Your task to perform on an android device: Open eBay Image 0: 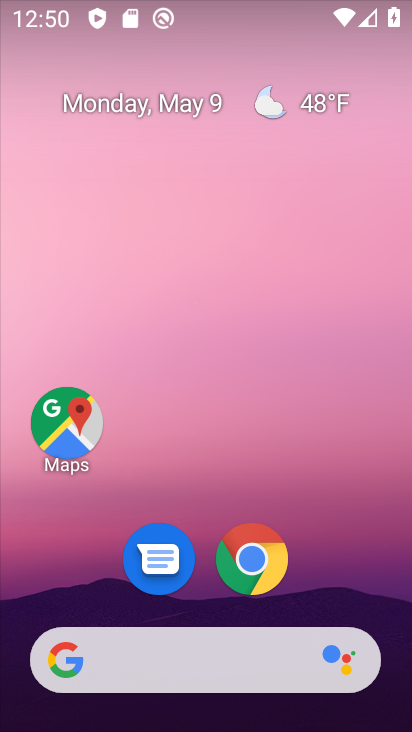
Step 0: drag from (221, 622) to (194, 237)
Your task to perform on an android device: Open eBay Image 1: 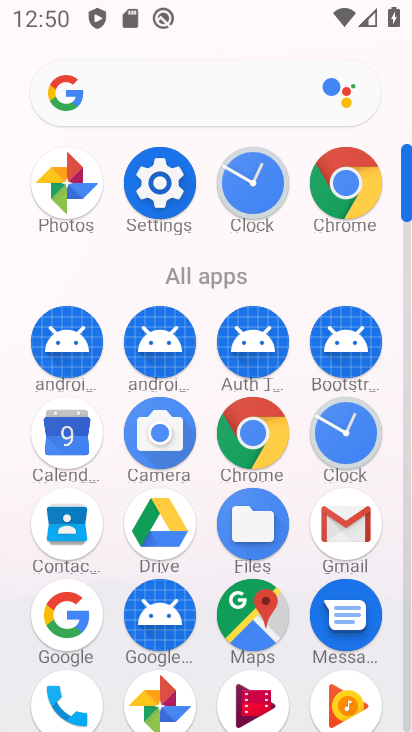
Step 1: drag from (214, 651) to (218, 329)
Your task to perform on an android device: Open eBay Image 2: 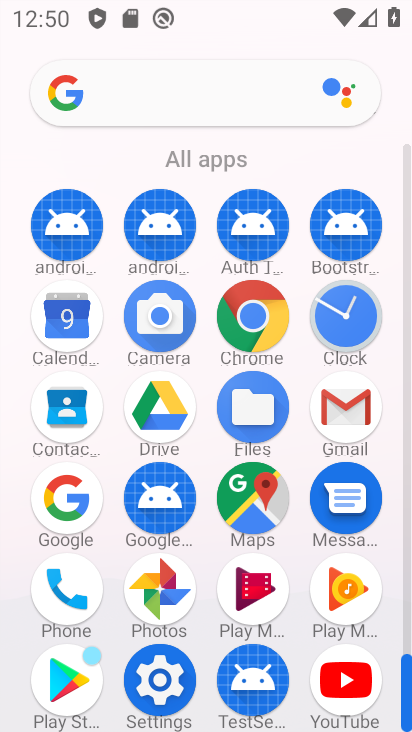
Step 2: click (168, 76)
Your task to perform on an android device: Open eBay Image 3: 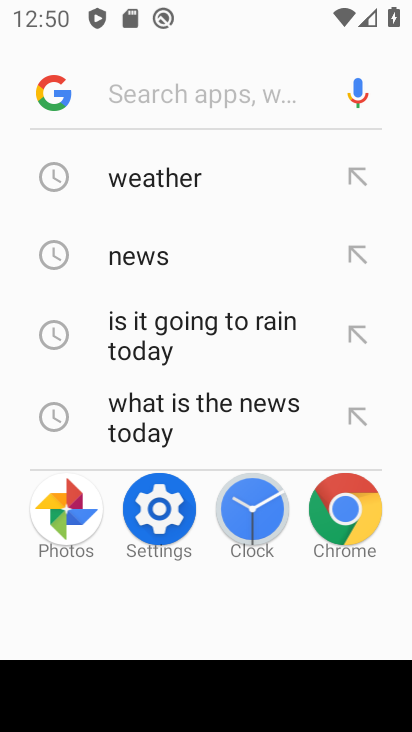
Step 3: type "ebay"
Your task to perform on an android device: Open eBay Image 4: 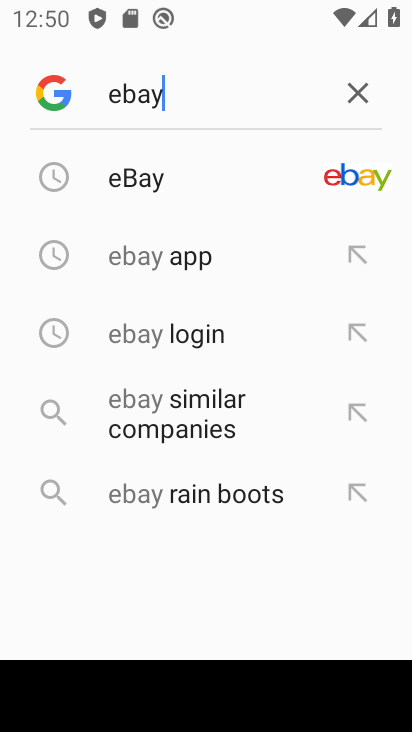
Step 4: click (175, 185)
Your task to perform on an android device: Open eBay Image 5: 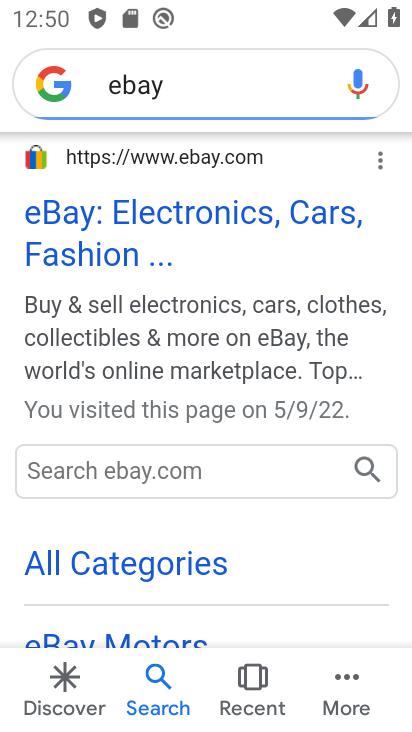
Step 5: drag from (204, 599) to (235, 340)
Your task to perform on an android device: Open eBay Image 6: 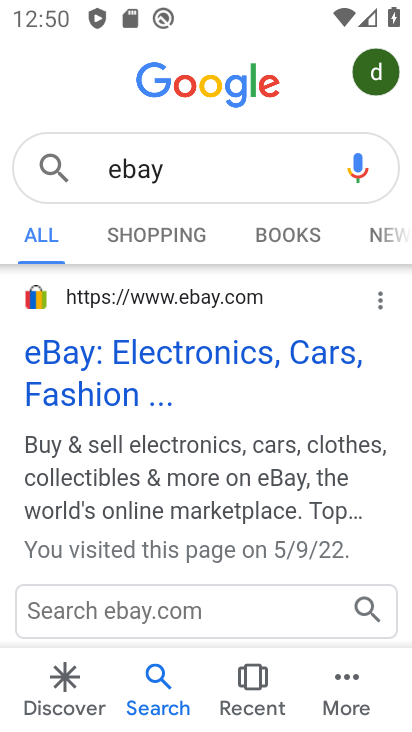
Step 6: drag from (215, 479) to (216, 300)
Your task to perform on an android device: Open eBay Image 7: 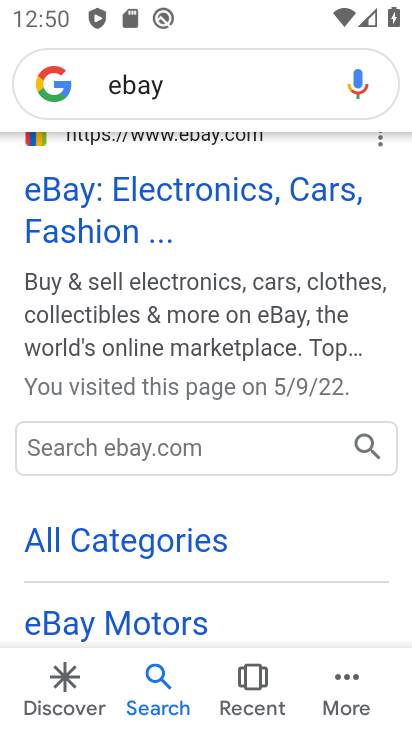
Step 7: drag from (217, 234) to (202, 438)
Your task to perform on an android device: Open eBay Image 8: 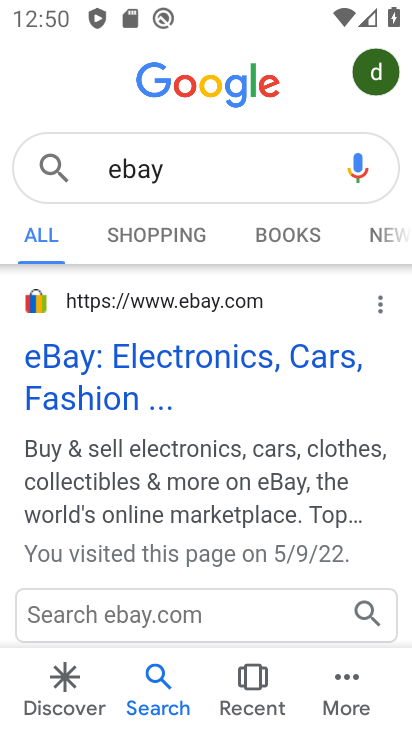
Step 8: click (109, 366)
Your task to perform on an android device: Open eBay Image 9: 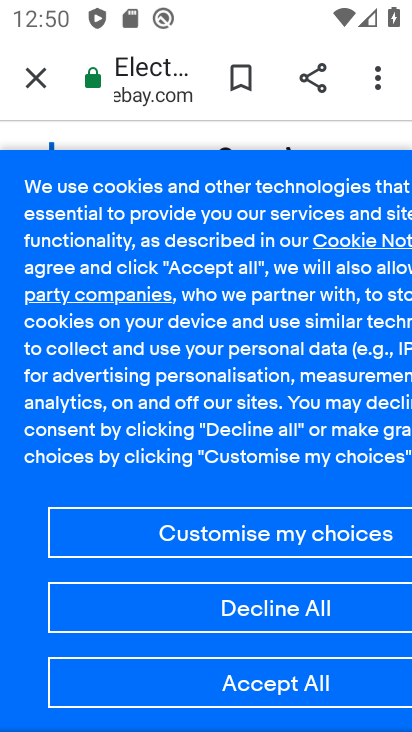
Step 9: task complete